Your task to perform on an android device: turn off sleep mode Image 0: 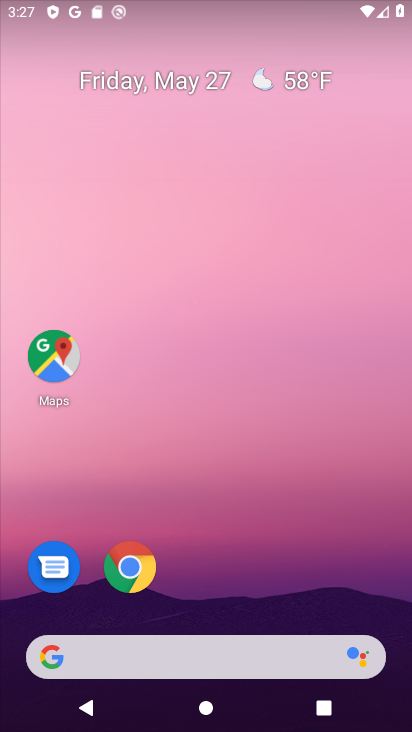
Step 0: drag from (234, 609) to (231, 4)
Your task to perform on an android device: turn off sleep mode Image 1: 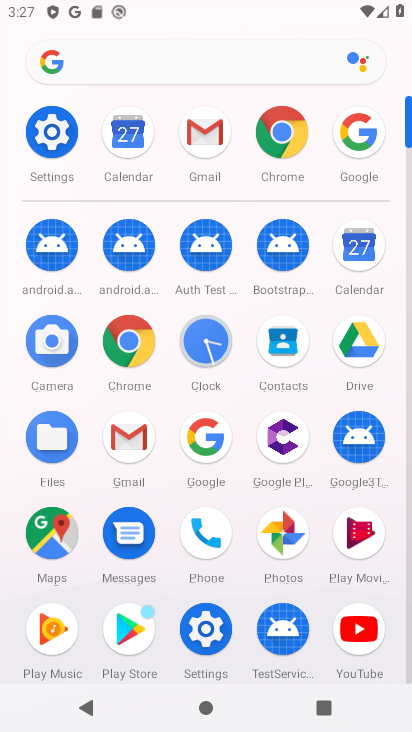
Step 1: click (54, 128)
Your task to perform on an android device: turn off sleep mode Image 2: 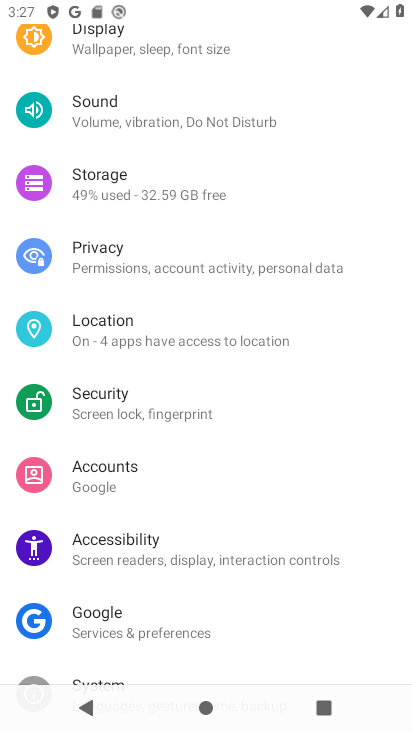
Step 2: click (140, 36)
Your task to perform on an android device: turn off sleep mode Image 3: 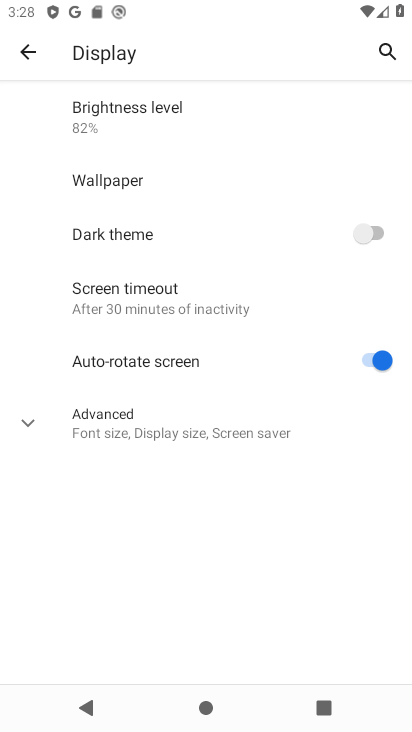
Step 3: click (25, 418)
Your task to perform on an android device: turn off sleep mode Image 4: 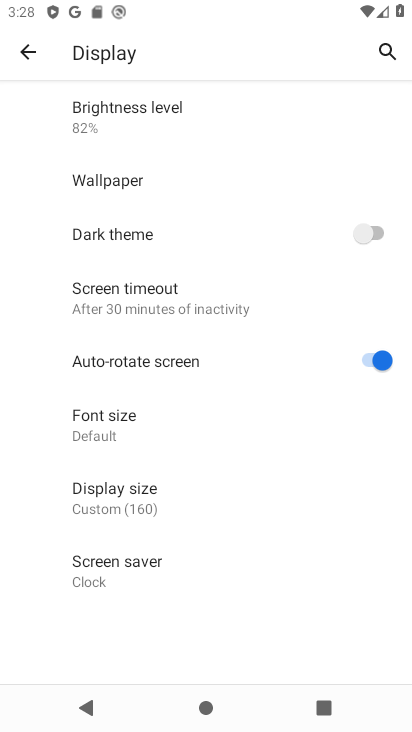
Step 4: task complete